Your task to perform on an android device: toggle show notifications on the lock screen Image 0: 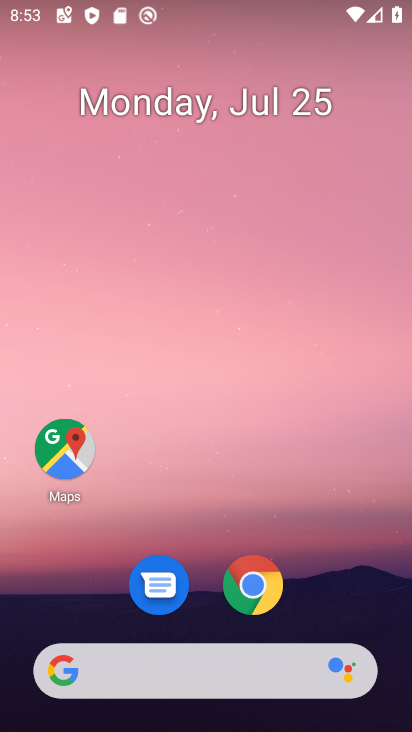
Step 0: press home button
Your task to perform on an android device: toggle show notifications on the lock screen Image 1: 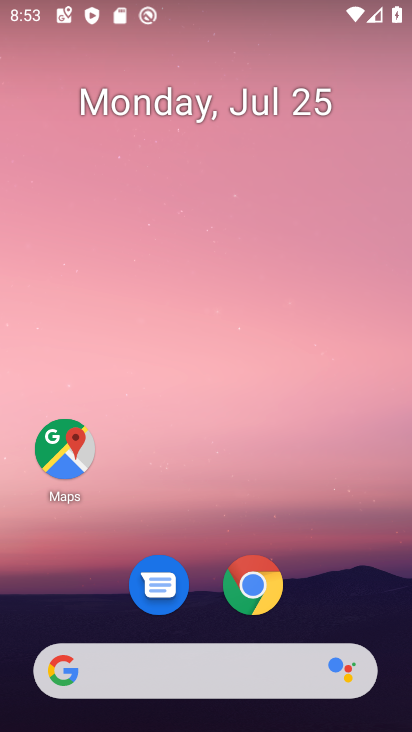
Step 1: drag from (219, 685) to (310, 168)
Your task to perform on an android device: toggle show notifications on the lock screen Image 2: 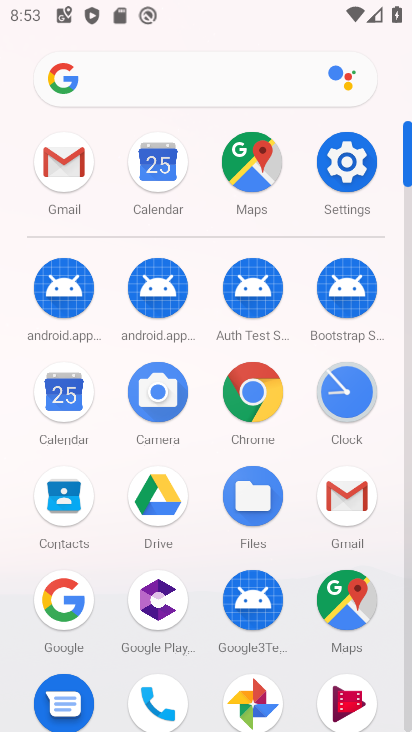
Step 2: click (340, 169)
Your task to perform on an android device: toggle show notifications on the lock screen Image 3: 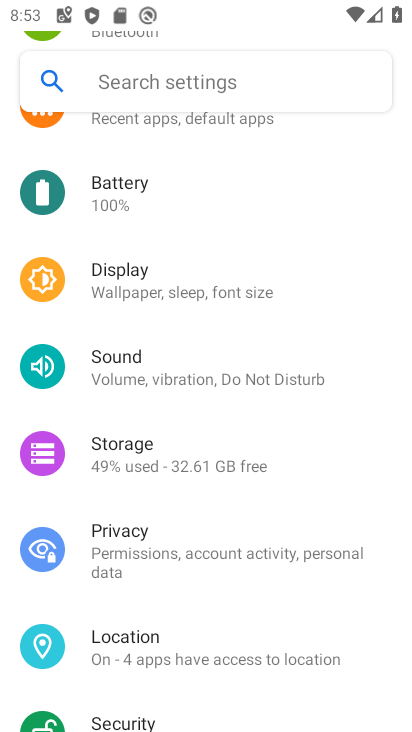
Step 3: drag from (333, 199) to (322, 538)
Your task to perform on an android device: toggle show notifications on the lock screen Image 4: 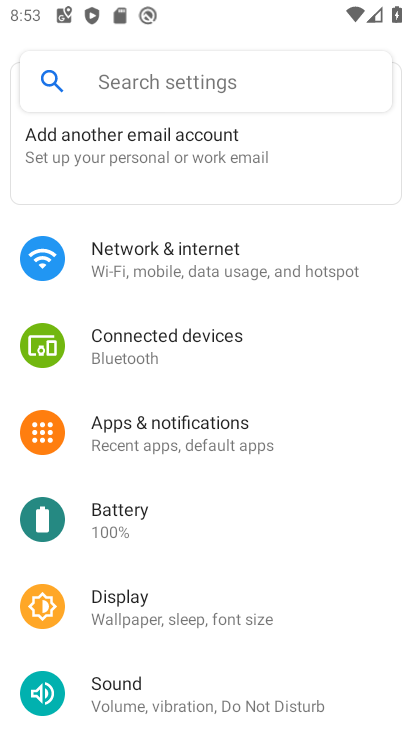
Step 4: click (227, 433)
Your task to perform on an android device: toggle show notifications on the lock screen Image 5: 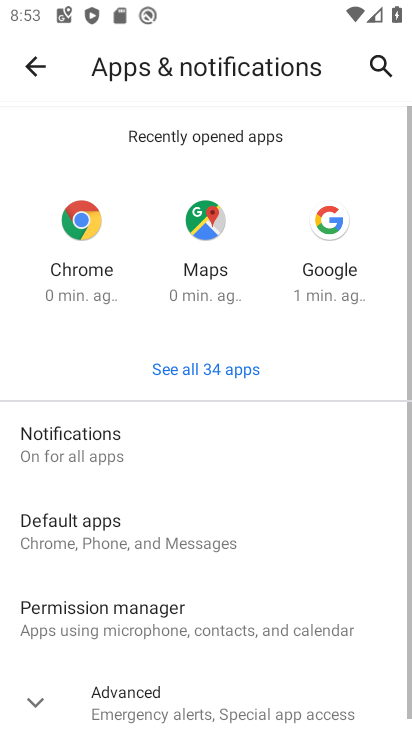
Step 5: click (108, 440)
Your task to perform on an android device: toggle show notifications on the lock screen Image 6: 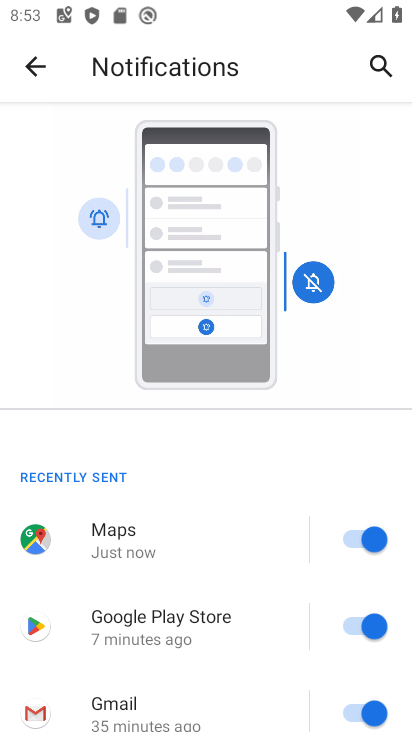
Step 6: drag from (207, 675) to (340, 280)
Your task to perform on an android device: toggle show notifications on the lock screen Image 7: 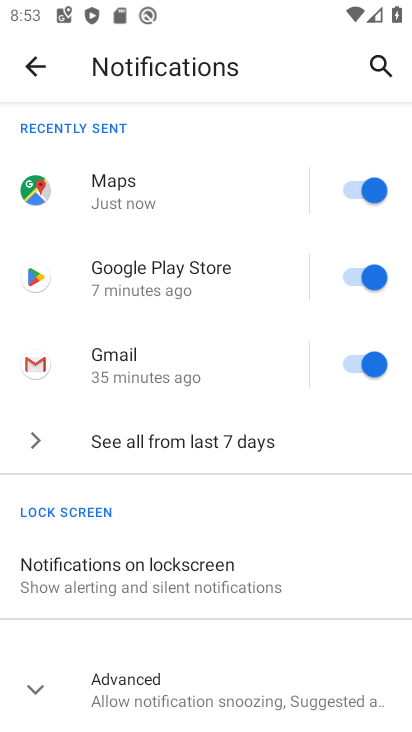
Step 7: click (223, 562)
Your task to perform on an android device: toggle show notifications on the lock screen Image 8: 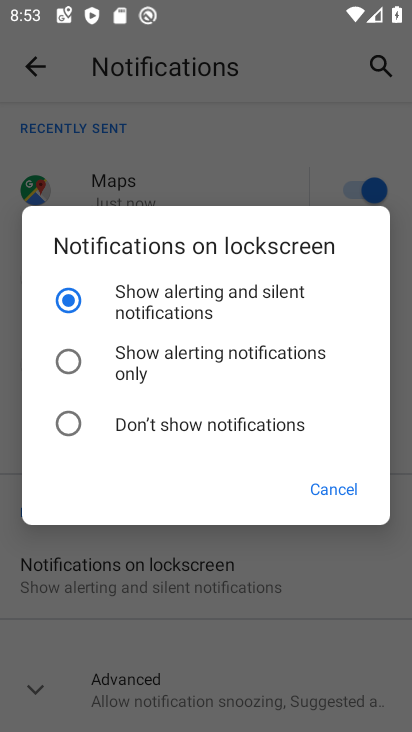
Step 8: click (64, 422)
Your task to perform on an android device: toggle show notifications on the lock screen Image 9: 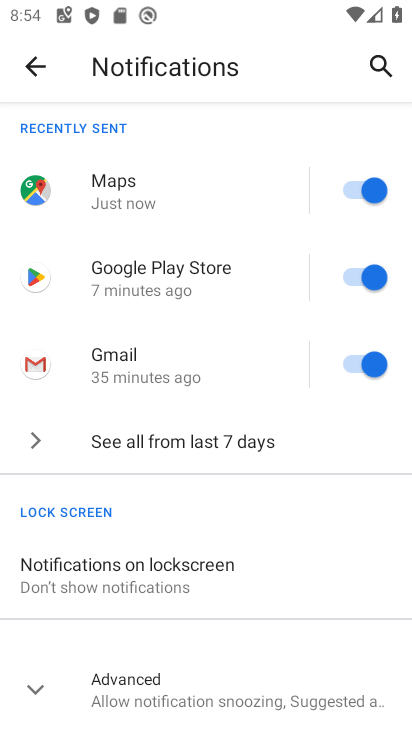
Step 9: task complete